Your task to perform on an android device: find photos in the google photos app Image 0: 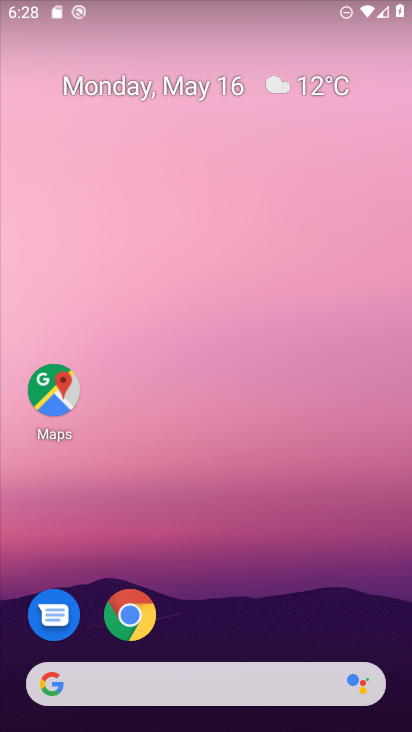
Step 0: drag from (267, 504) to (371, 209)
Your task to perform on an android device: find photos in the google photos app Image 1: 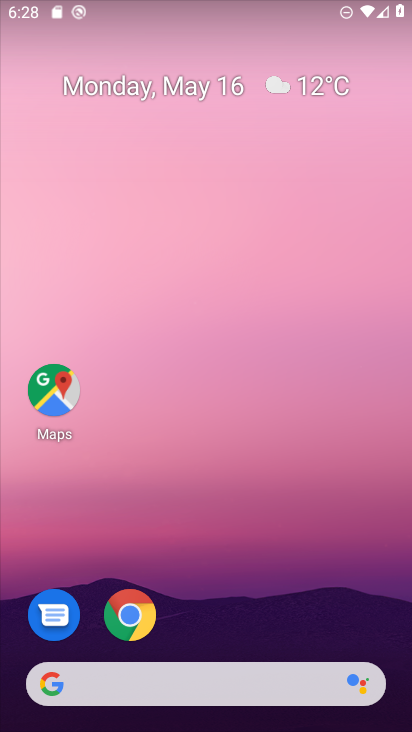
Step 1: drag from (191, 166) to (227, 16)
Your task to perform on an android device: find photos in the google photos app Image 2: 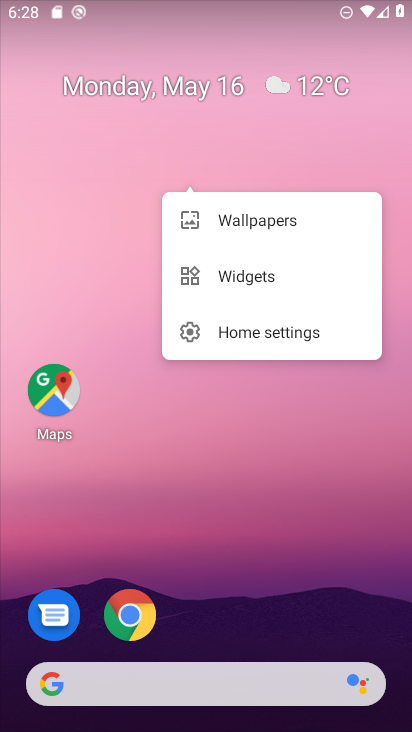
Step 2: drag from (230, 574) to (197, 90)
Your task to perform on an android device: find photos in the google photos app Image 3: 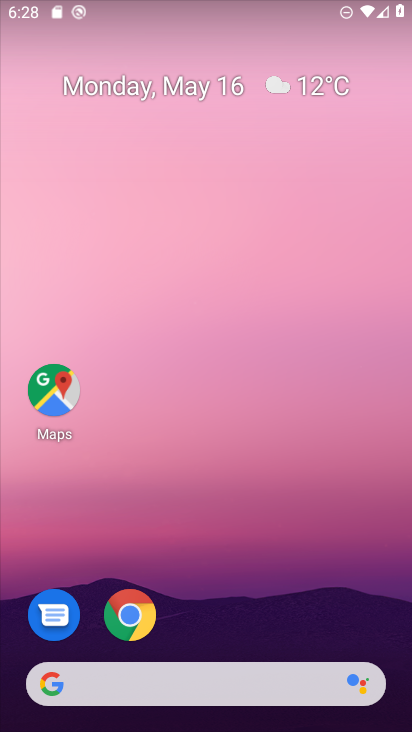
Step 3: drag from (214, 569) to (194, 147)
Your task to perform on an android device: find photos in the google photos app Image 4: 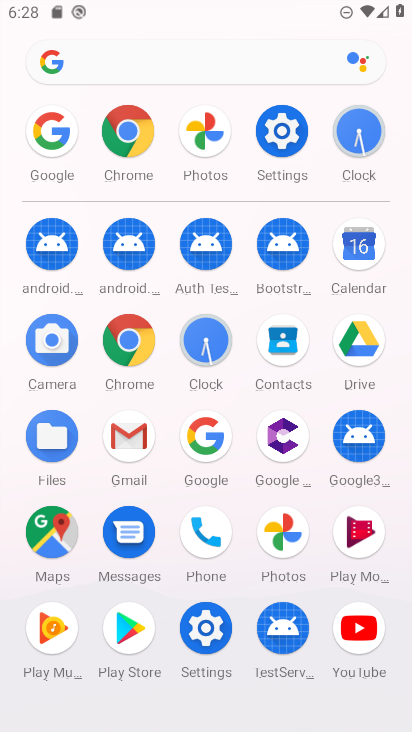
Step 4: click (204, 144)
Your task to perform on an android device: find photos in the google photos app Image 5: 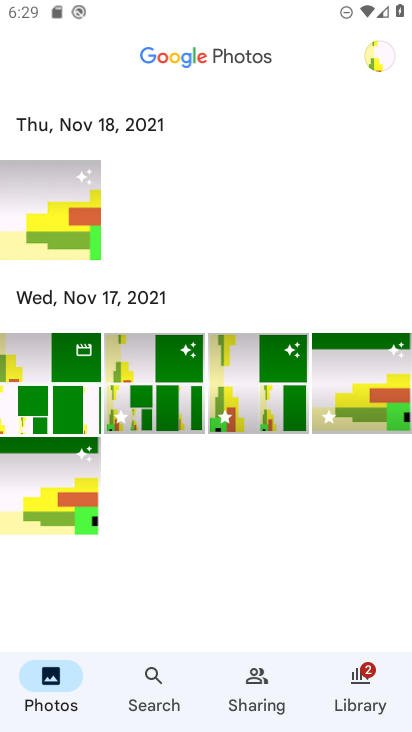
Step 5: task complete